Your task to perform on an android device: When is my next meeting? Image 0: 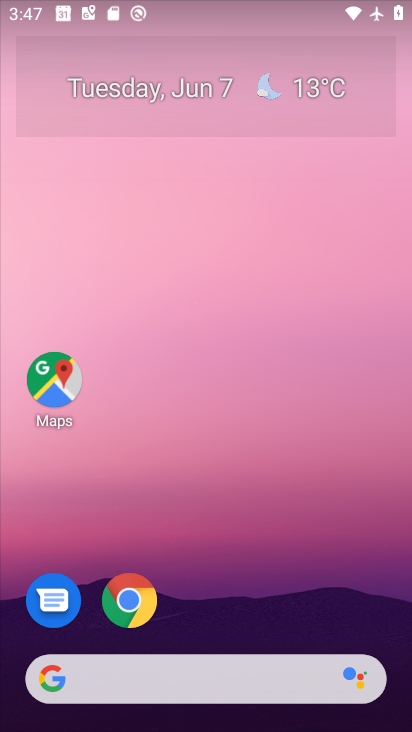
Step 0: drag from (304, 524) to (311, 217)
Your task to perform on an android device: When is my next meeting? Image 1: 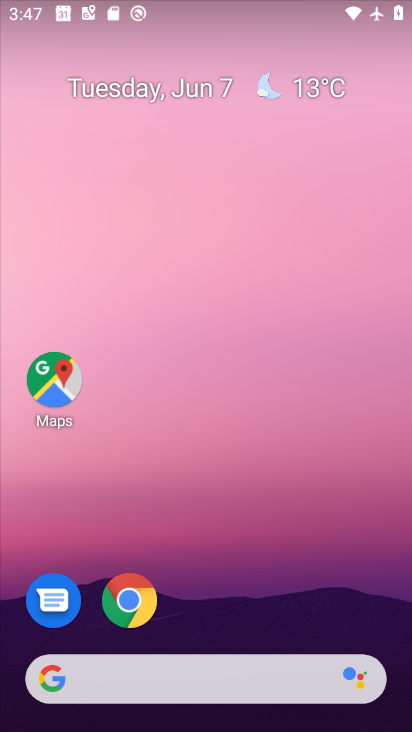
Step 1: drag from (307, 463) to (267, 27)
Your task to perform on an android device: When is my next meeting? Image 2: 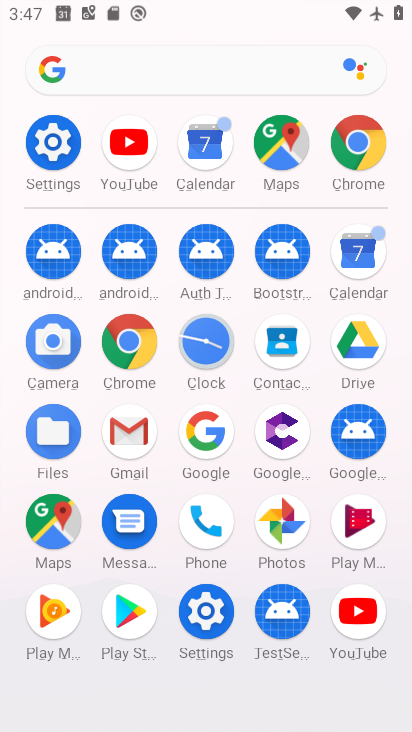
Step 2: click (356, 263)
Your task to perform on an android device: When is my next meeting? Image 3: 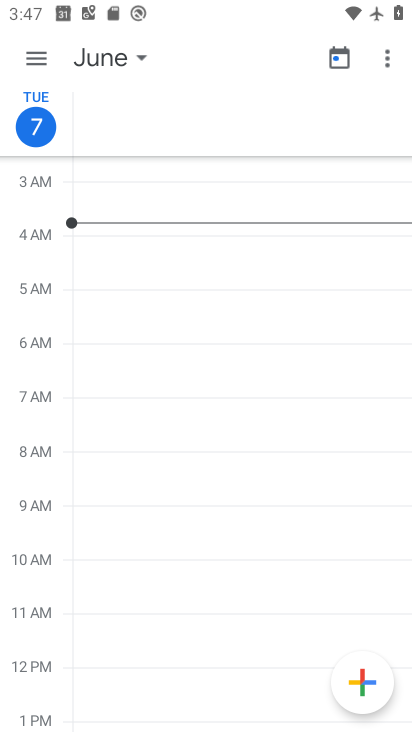
Step 3: click (47, 49)
Your task to perform on an android device: When is my next meeting? Image 4: 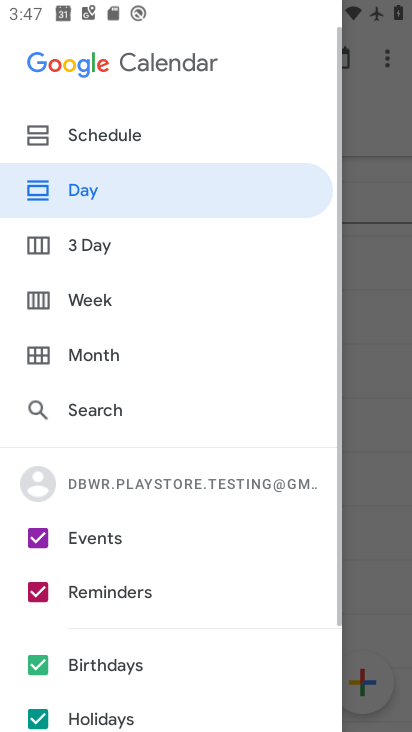
Step 4: click (85, 241)
Your task to perform on an android device: When is my next meeting? Image 5: 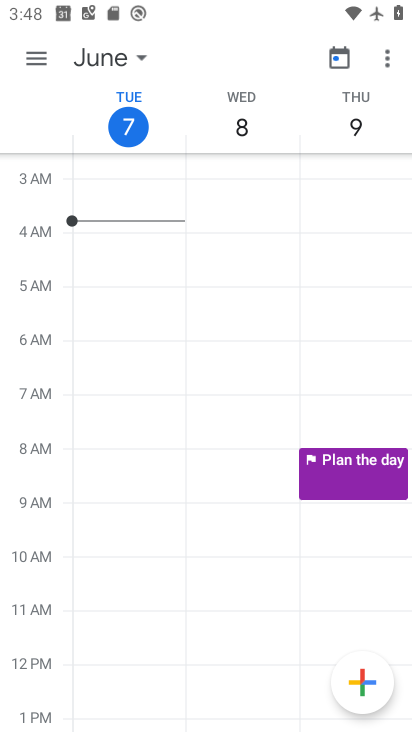
Step 5: task complete